Your task to perform on an android device: open chrome and create a bookmark for the current page Image 0: 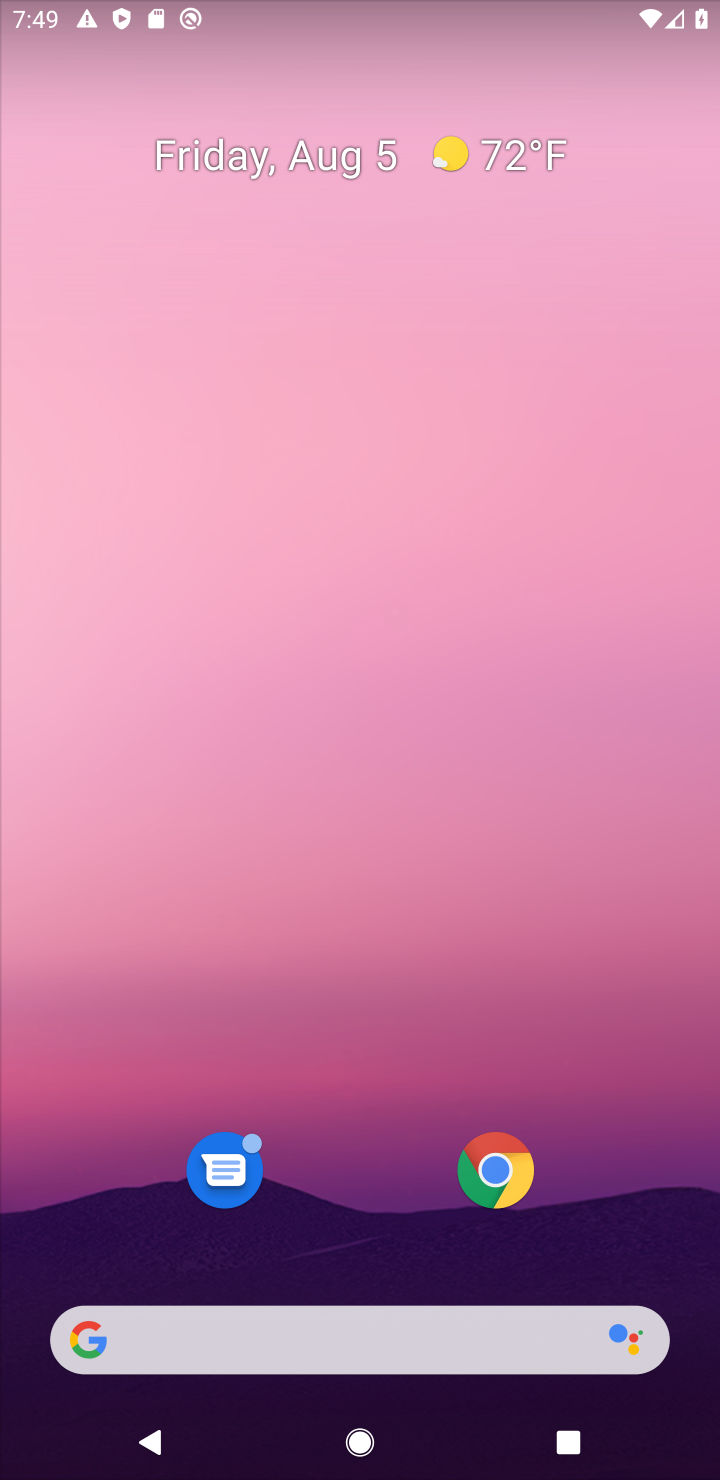
Step 0: click (497, 1172)
Your task to perform on an android device: open chrome and create a bookmark for the current page Image 1: 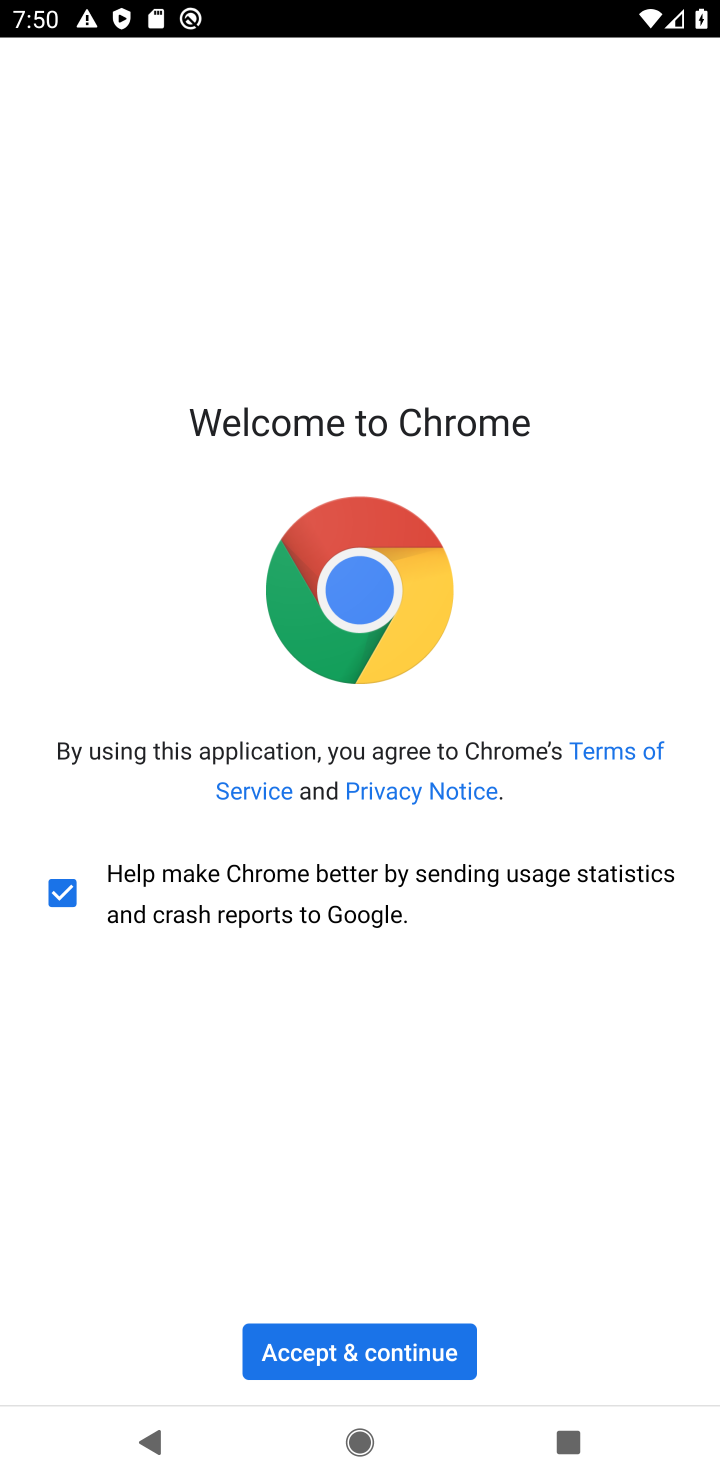
Step 1: click (359, 1353)
Your task to perform on an android device: open chrome and create a bookmark for the current page Image 2: 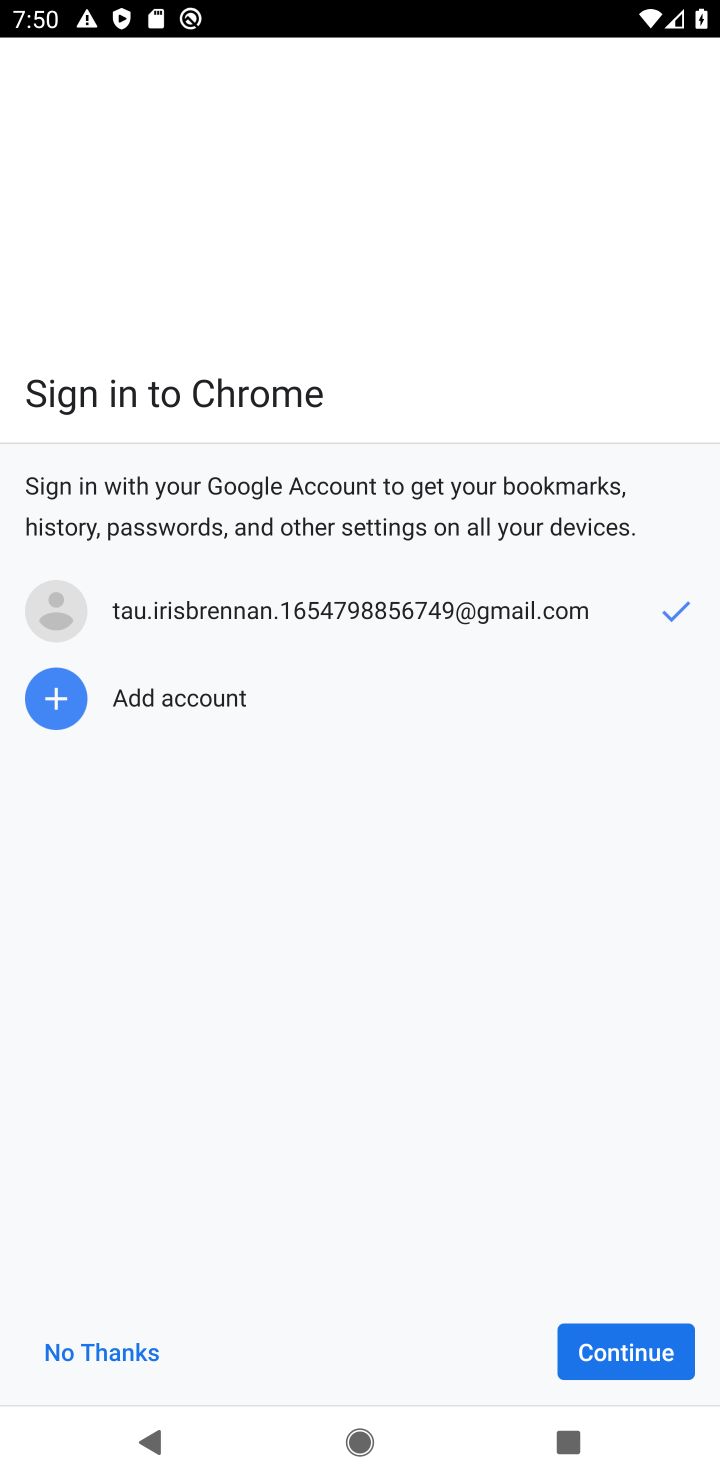
Step 2: click (623, 1347)
Your task to perform on an android device: open chrome and create a bookmark for the current page Image 3: 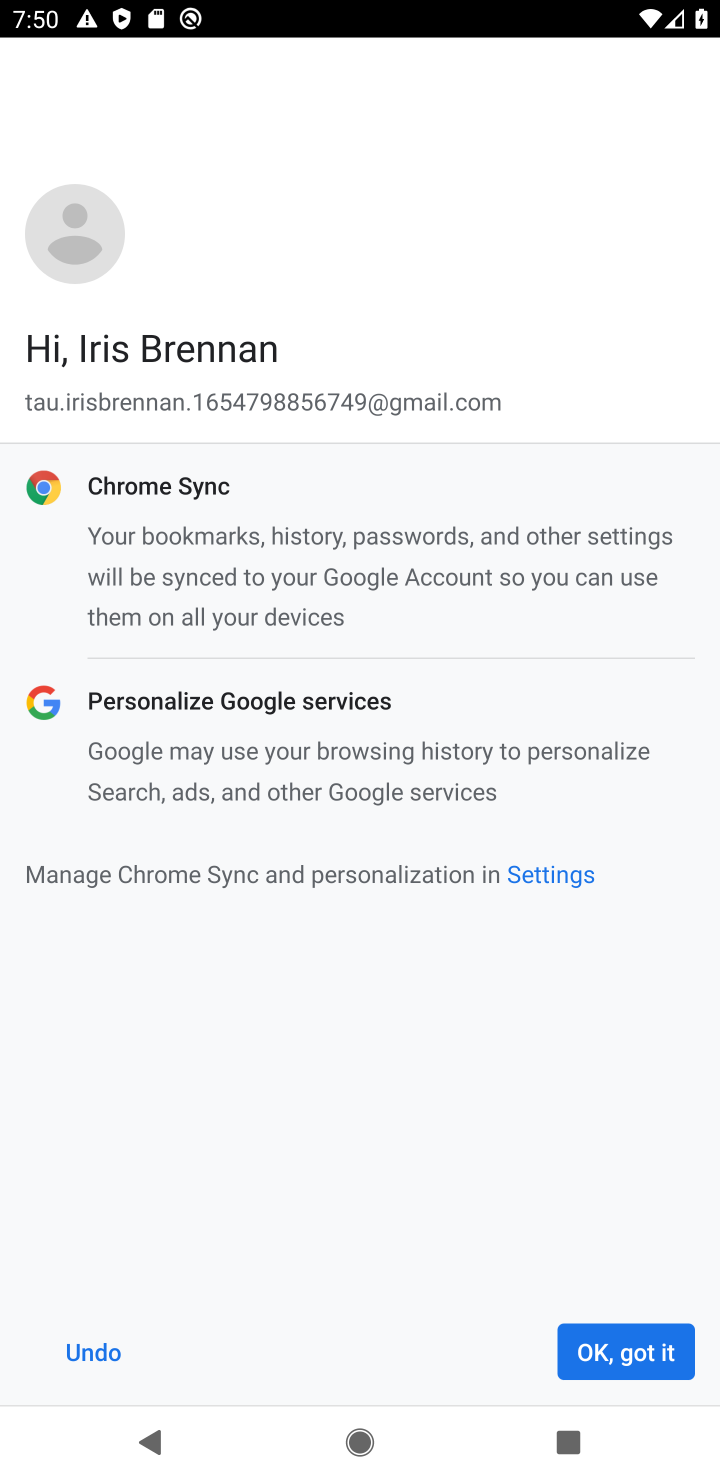
Step 3: click (623, 1347)
Your task to perform on an android device: open chrome and create a bookmark for the current page Image 4: 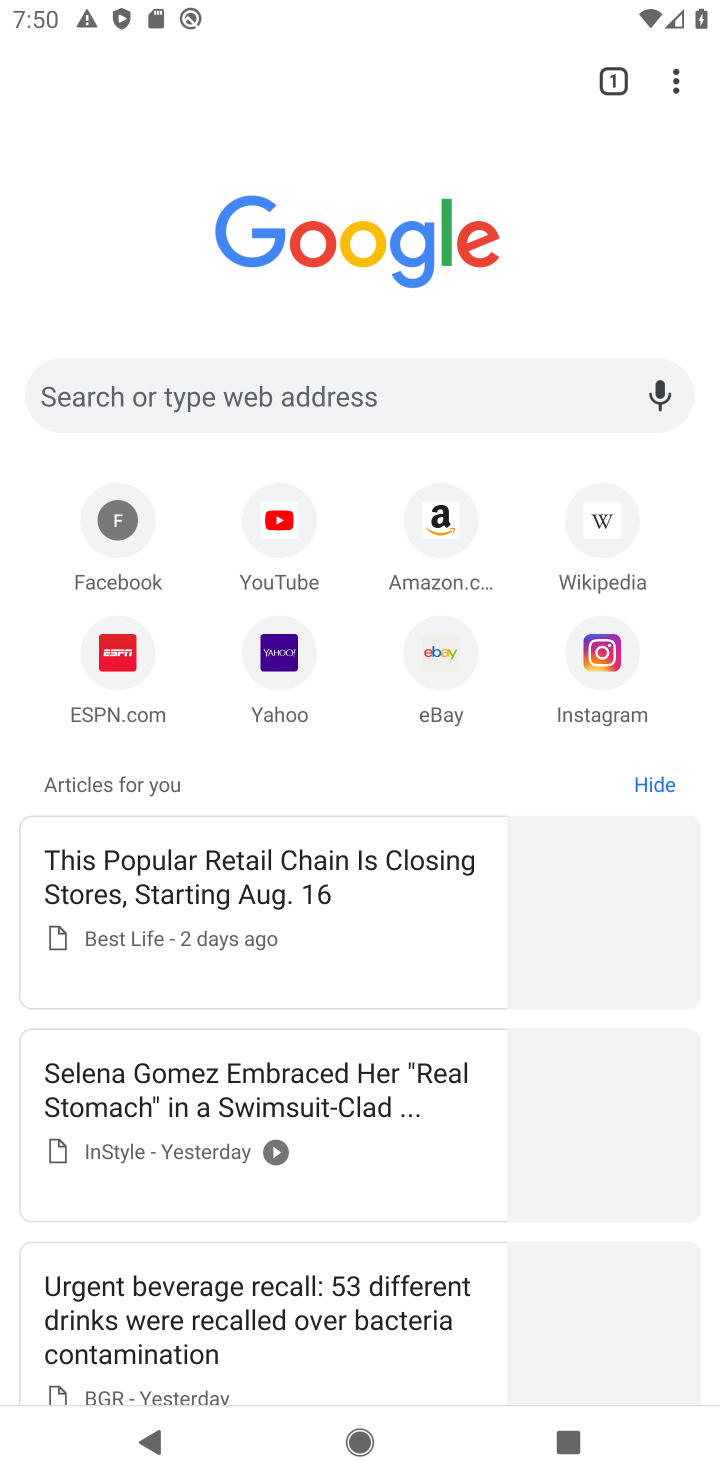
Step 4: click (671, 94)
Your task to perform on an android device: open chrome and create a bookmark for the current page Image 5: 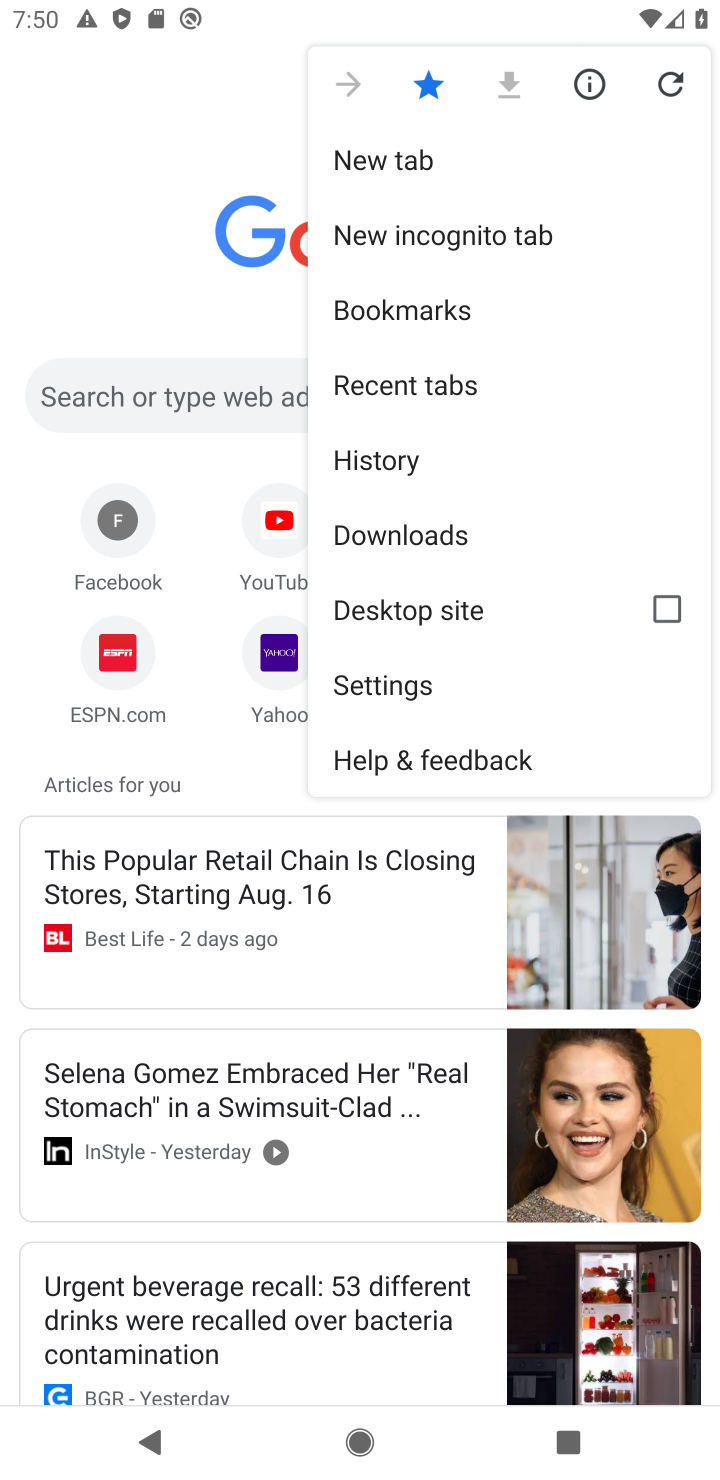
Step 5: task complete